Your task to perform on an android device: View the shopping cart on costco.com. Image 0: 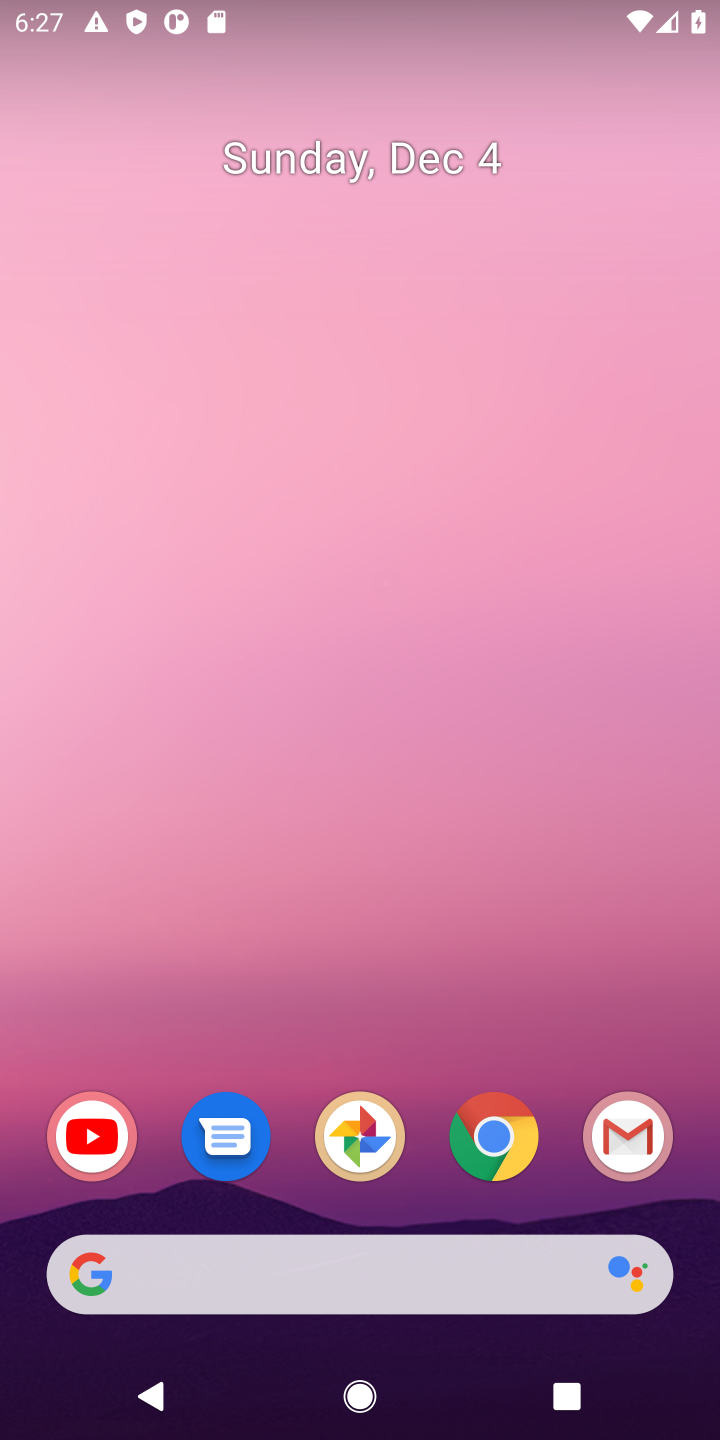
Step 0: click (480, 1162)
Your task to perform on an android device: View the shopping cart on costco.com. Image 1: 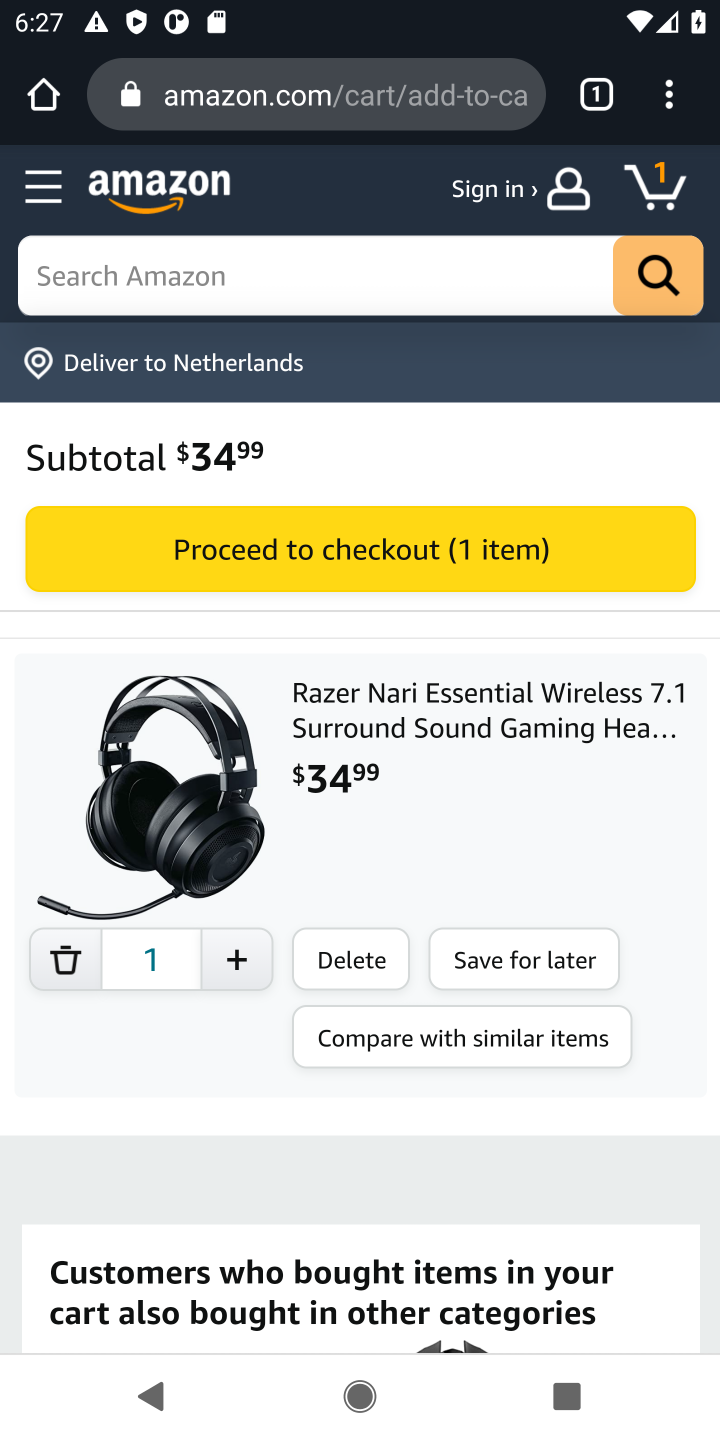
Step 1: click (287, 94)
Your task to perform on an android device: View the shopping cart on costco.com. Image 2: 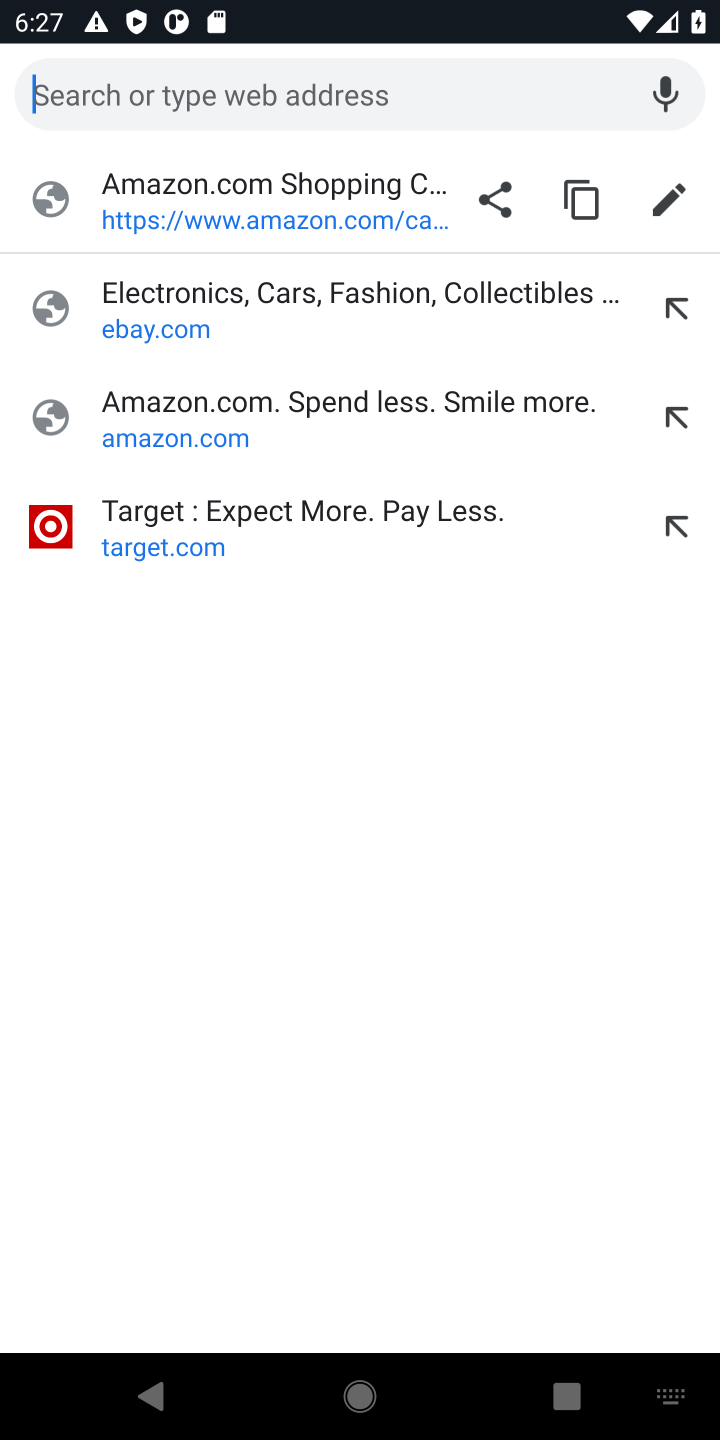
Step 2: type "costco.com"
Your task to perform on an android device: View the shopping cart on costco.com. Image 3: 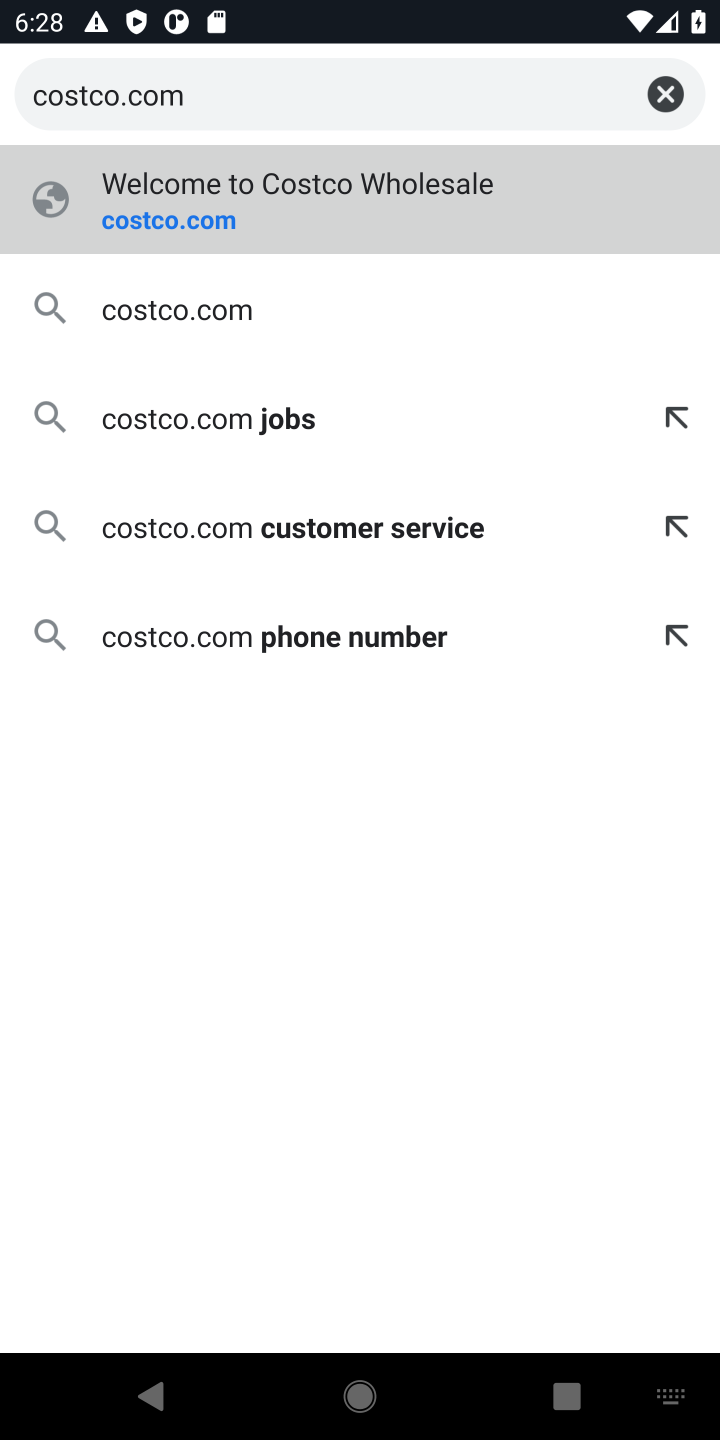
Step 3: click (156, 209)
Your task to perform on an android device: View the shopping cart on costco.com. Image 4: 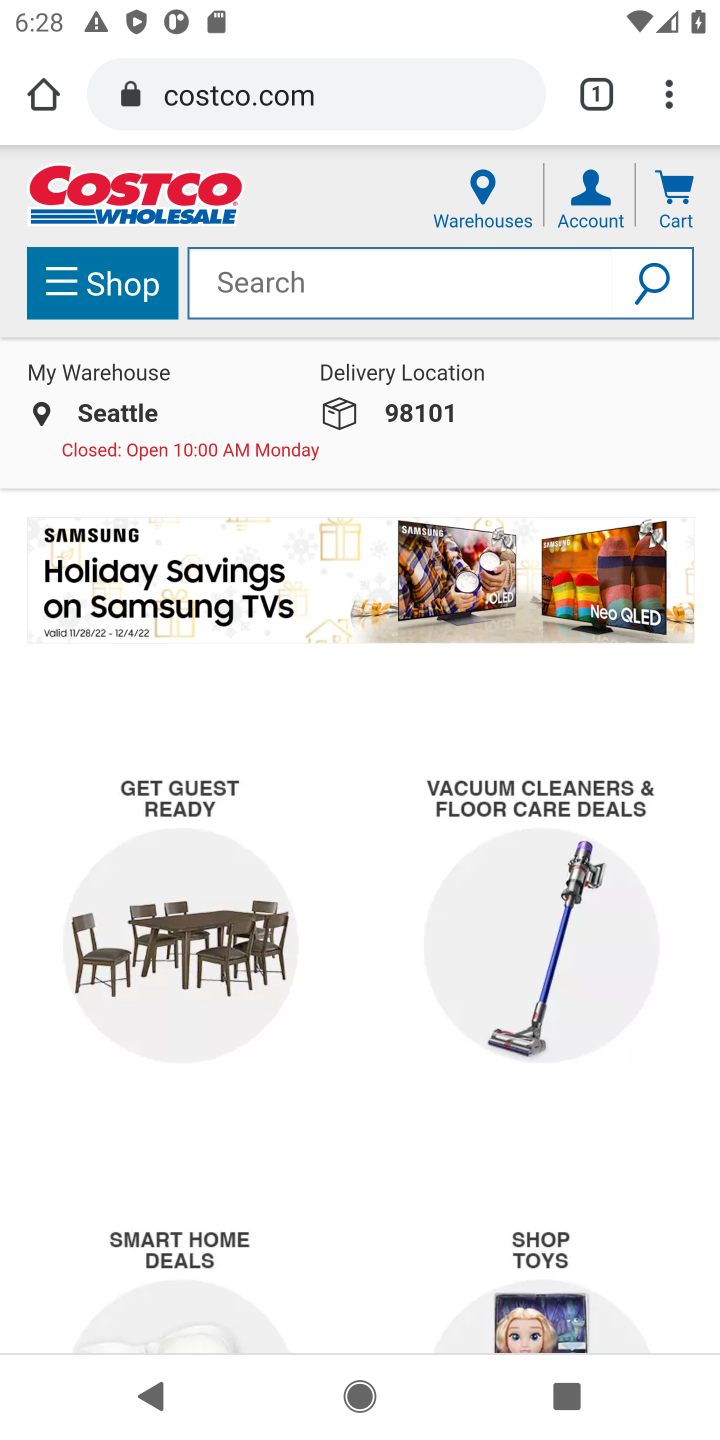
Step 4: click (682, 207)
Your task to perform on an android device: View the shopping cart on costco.com. Image 5: 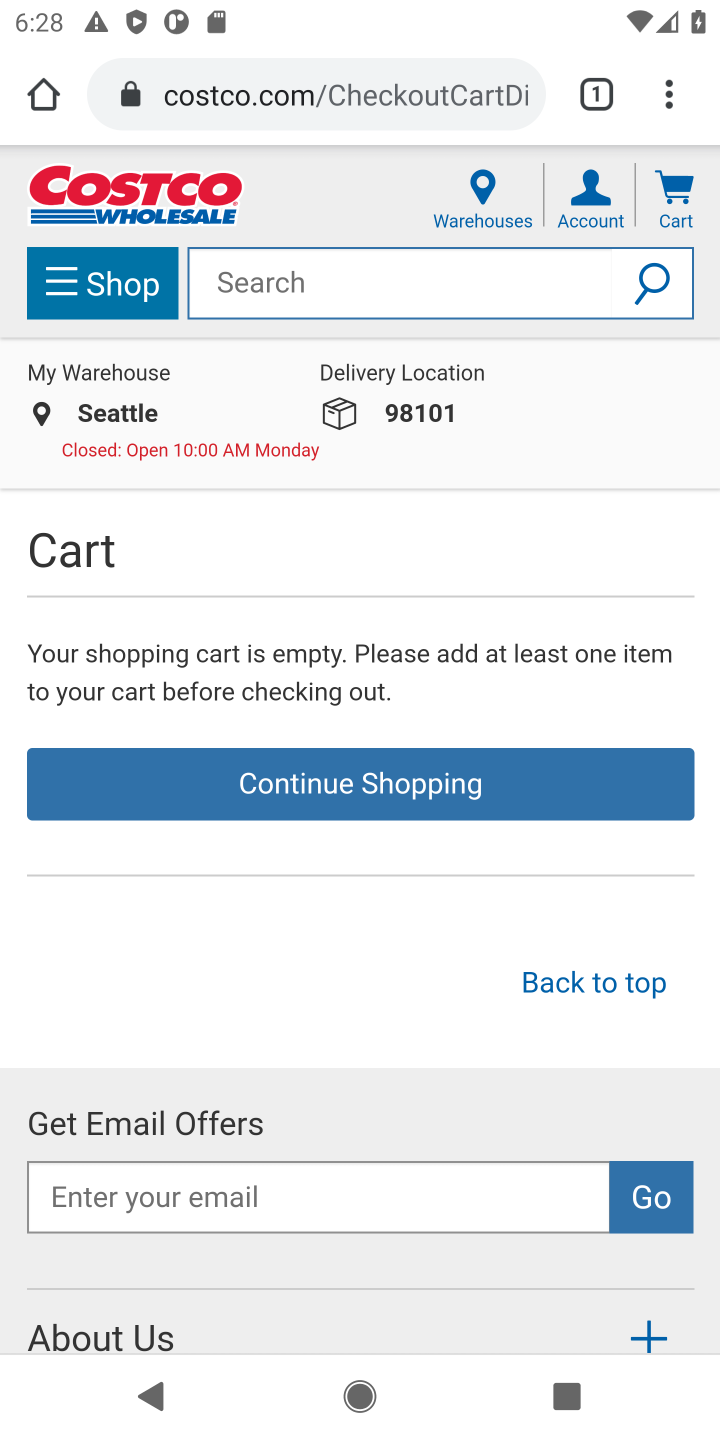
Step 5: task complete